Your task to perform on an android device: What is the recent news? Image 0: 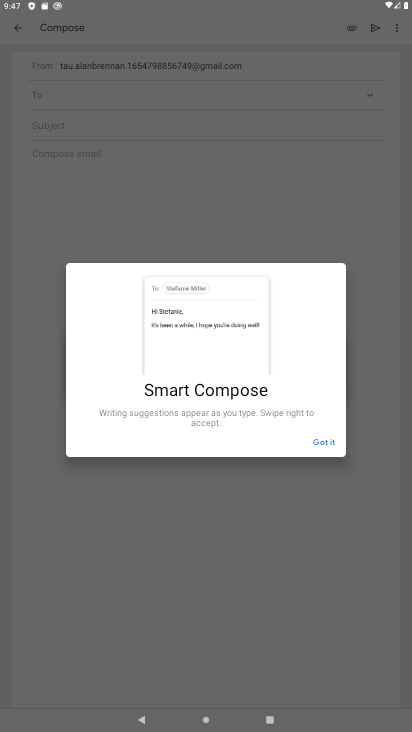
Step 0: press home button
Your task to perform on an android device: What is the recent news? Image 1: 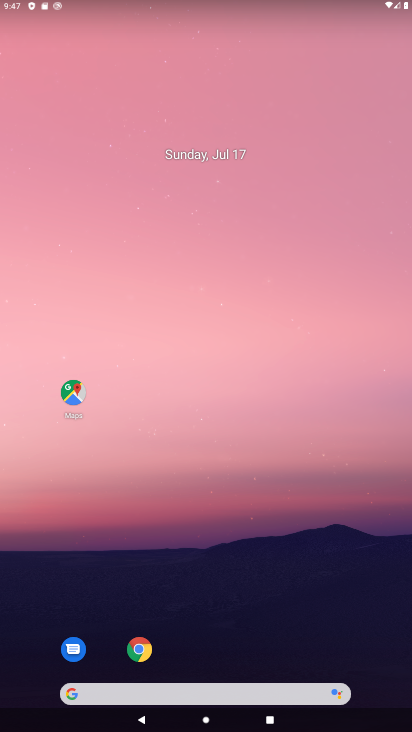
Step 1: click (106, 686)
Your task to perform on an android device: What is the recent news? Image 2: 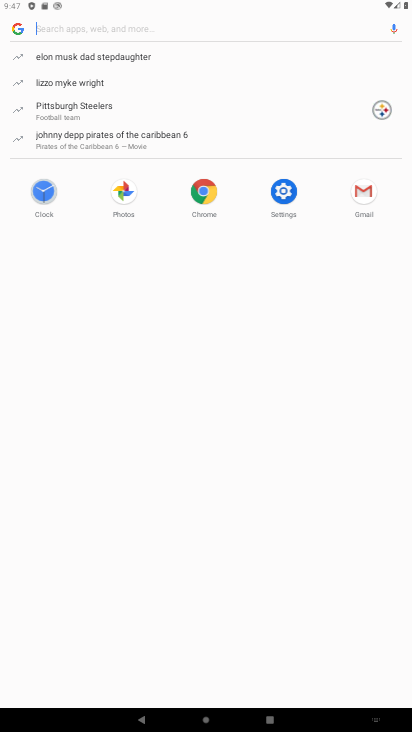
Step 2: type "What is the recent news?"
Your task to perform on an android device: What is the recent news? Image 3: 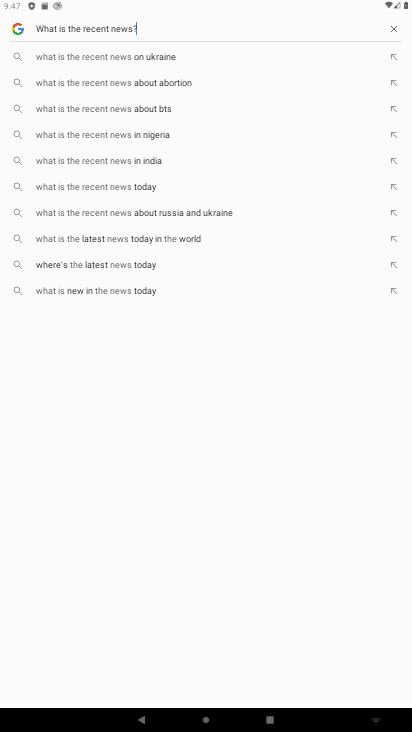
Step 3: type ""
Your task to perform on an android device: What is the recent news? Image 4: 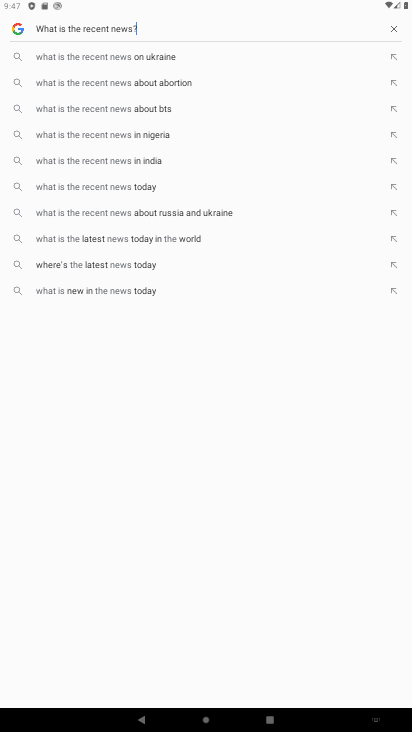
Step 4: task complete